Your task to perform on an android device: What is the capital of Italy? Image 0: 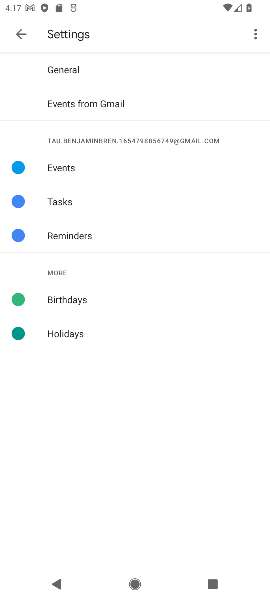
Step 0: press home button
Your task to perform on an android device: What is the capital of Italy? Image 1: 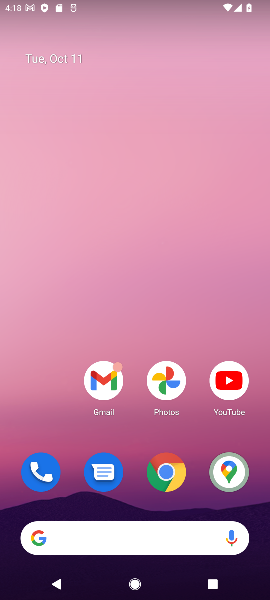
Step 1: click (156, 530)
Your task to perform on an android device: What is the capital of Italy? Image 2: 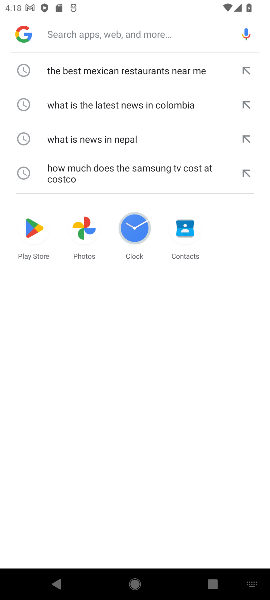
Step 2: type "What is the capital of Italy?"
Your task to perform on an android device: What is the capital of Italy? Image 3: 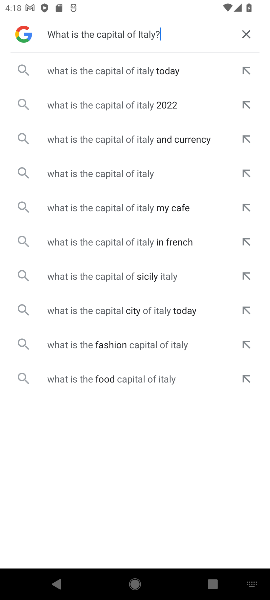
Step 3: click (143, 69)
Your task to perform on an android device: What is the capital of Italy? Image 4: 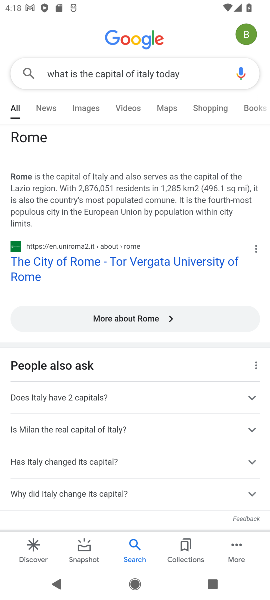
Step 4: task complete